Your task to perform on an android device: turn on priority inbox in the gmail app Image 0: 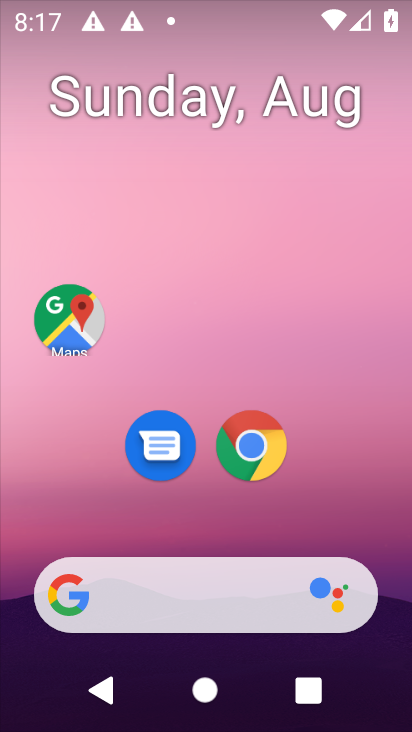
Step 0: drag from (209, 528) to (225, 88)
Your task to perform on an android device: turn on priority inbox in the gmail app Image 1: 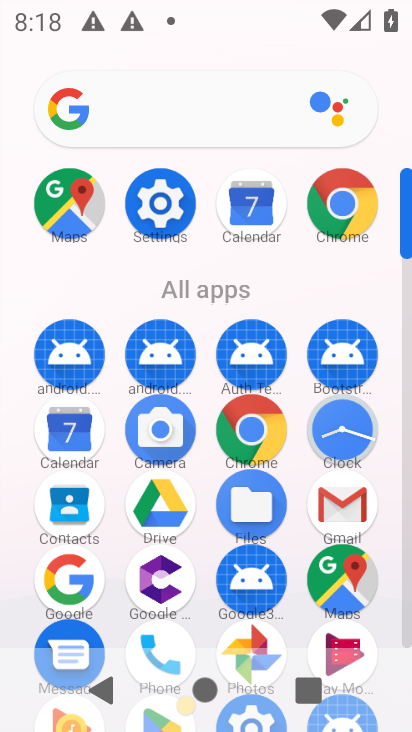
Step 1: click (336, 500)
Your task to perform on an android device: turn on priority inbox in the gmail app Image 2: 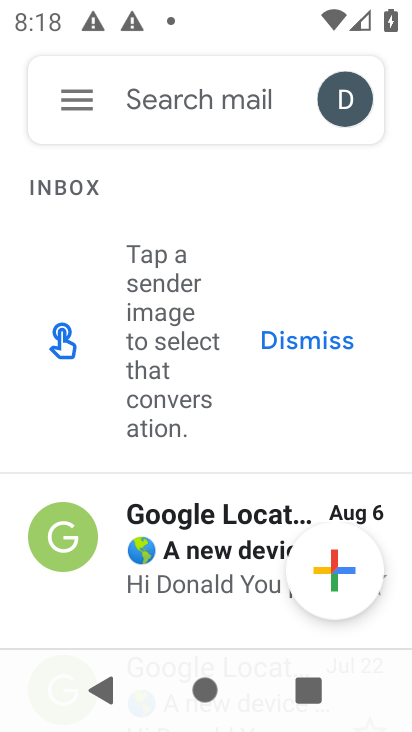
Step 2: click (75, 97)
Your task to perform on an android device: turn on priority inbox in the gmail app Image 3: 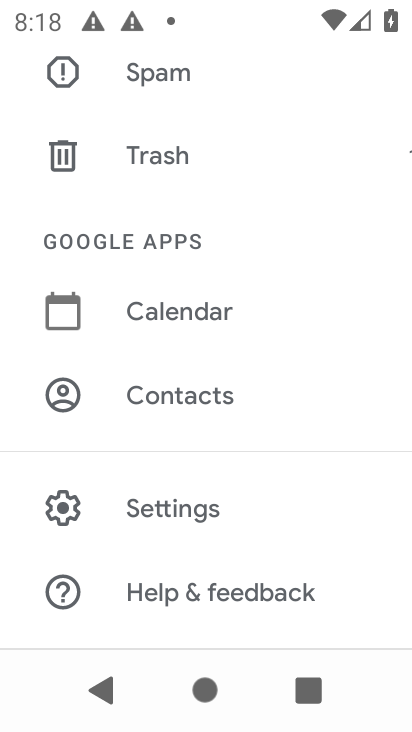
Step 3: click (225, 505)
Your task to perform on an android device: turn on priority inbox in the gmail app Image 4: 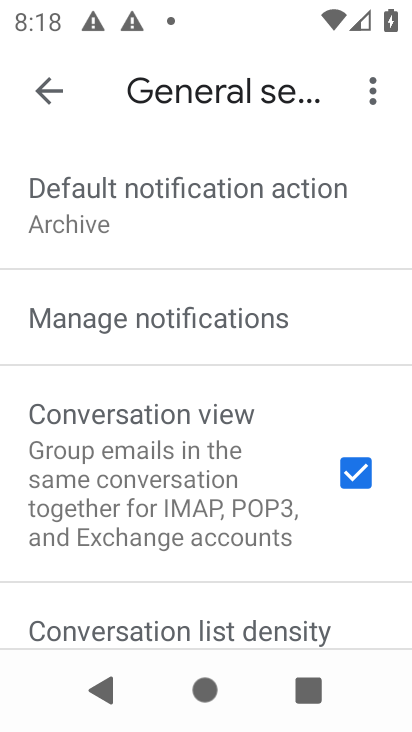
Step 4: click (41, 79)
Your task to perform on an android device: turn on priority inbox in the gmail app Image 5: 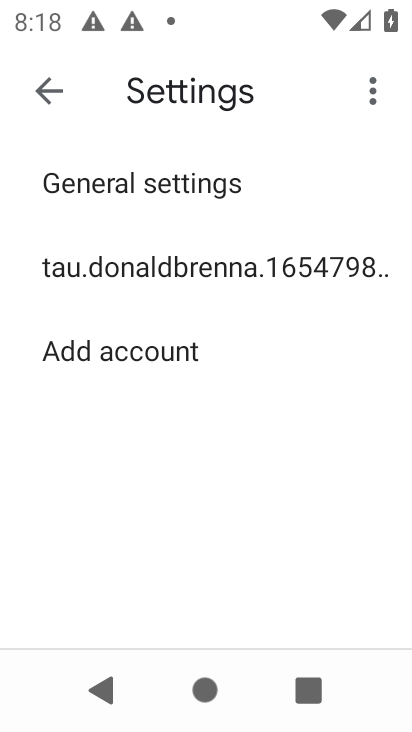
Step 5: click (165, 269)
Your task to perform on an android device: turn on priority inbox in the gmail app Image 6: 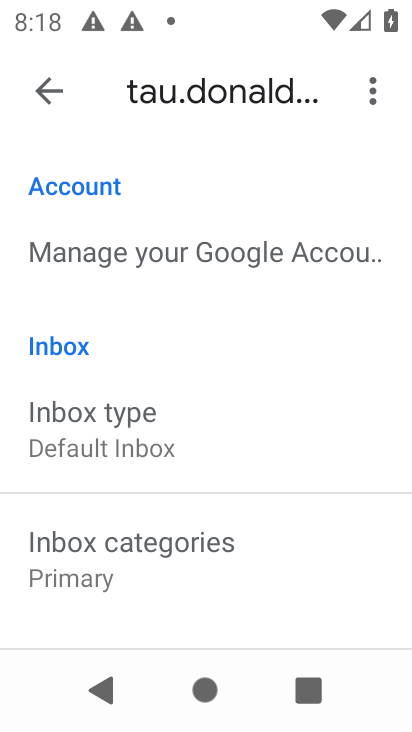
Step 6: click (184, 430)
Your task to perform on an android device: turn on priority inbox in the gmail app Image 7: 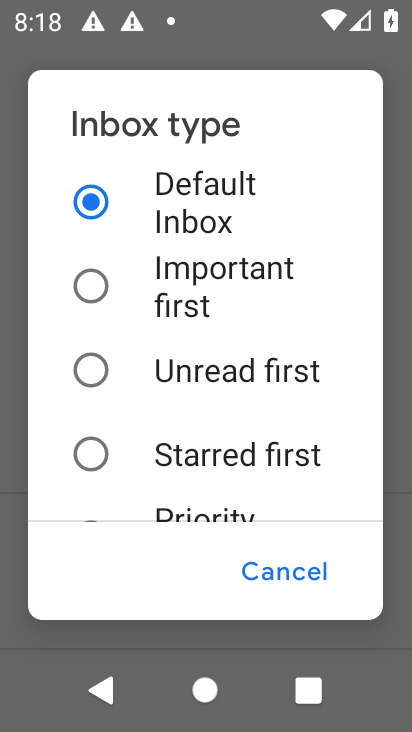
Step 7: drag from (150, 474) to (144, 268)
Your task to perform on an android device: turn on priority inbox in the gmail app Image 8: 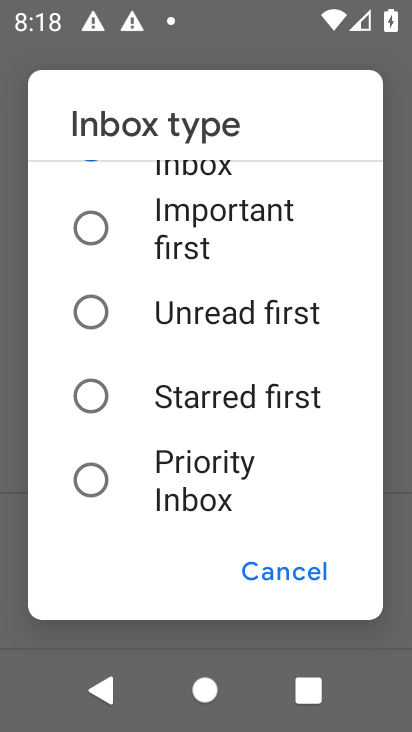
Step 8: click (89, 480)
Your task to perform on an android device: turn on priority inbox in the gmail app Image 9: 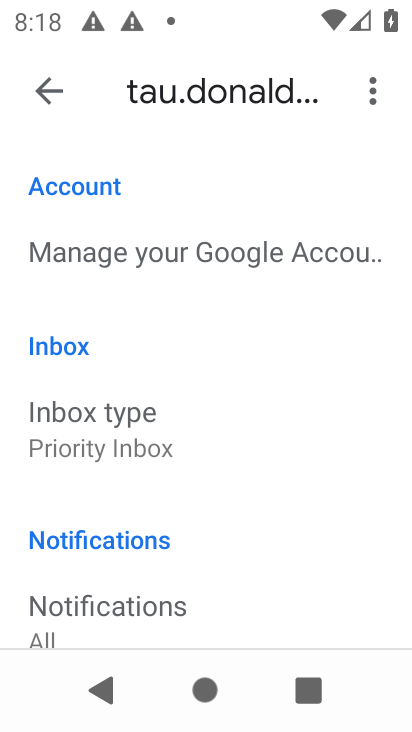
Step 9: task complete